Your task to perform on an android device: Open Amazon Image 0: 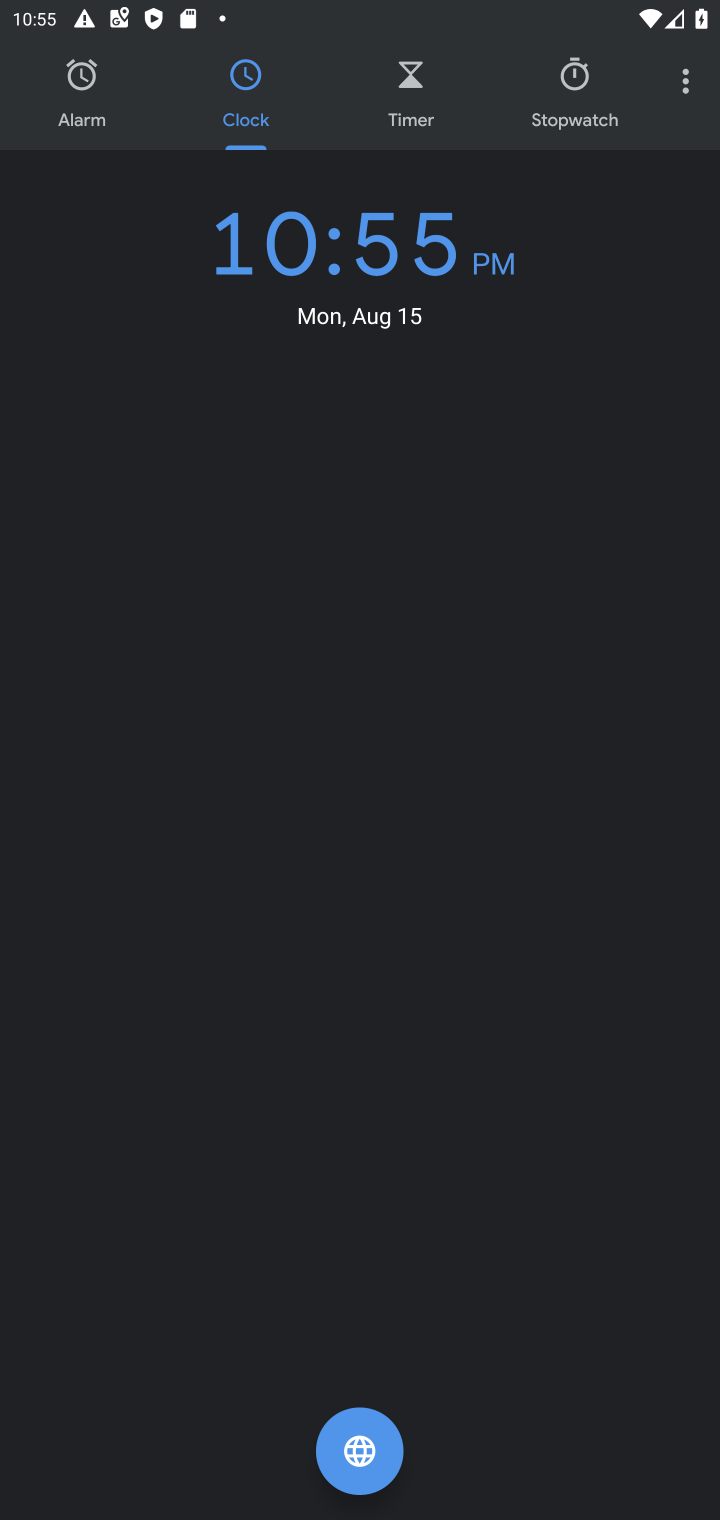
Step 0: press home button
Your task to perform on an android device: Open Amazon Image 1: 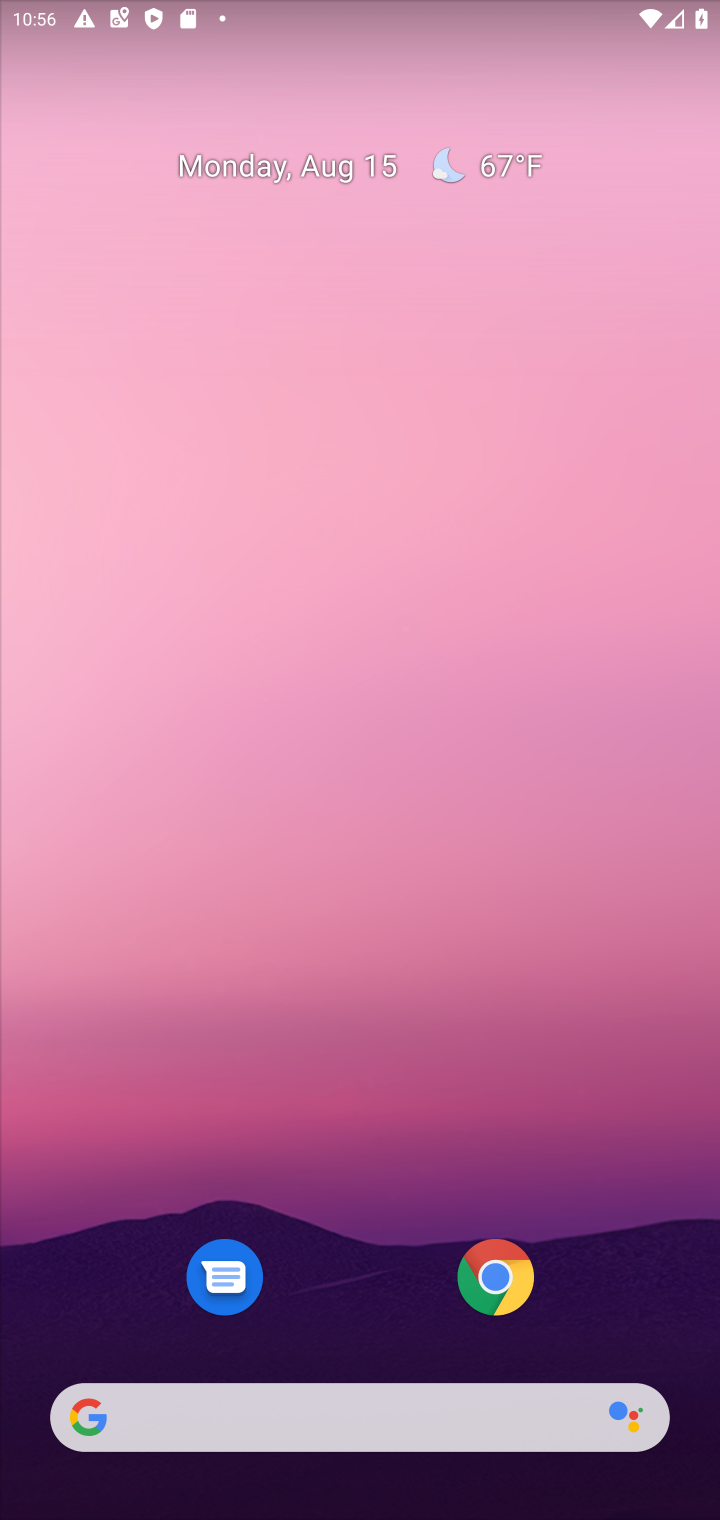
Step 1: click (506, 1275)
Your task to perform on an android device: Open Amazon Image 2: 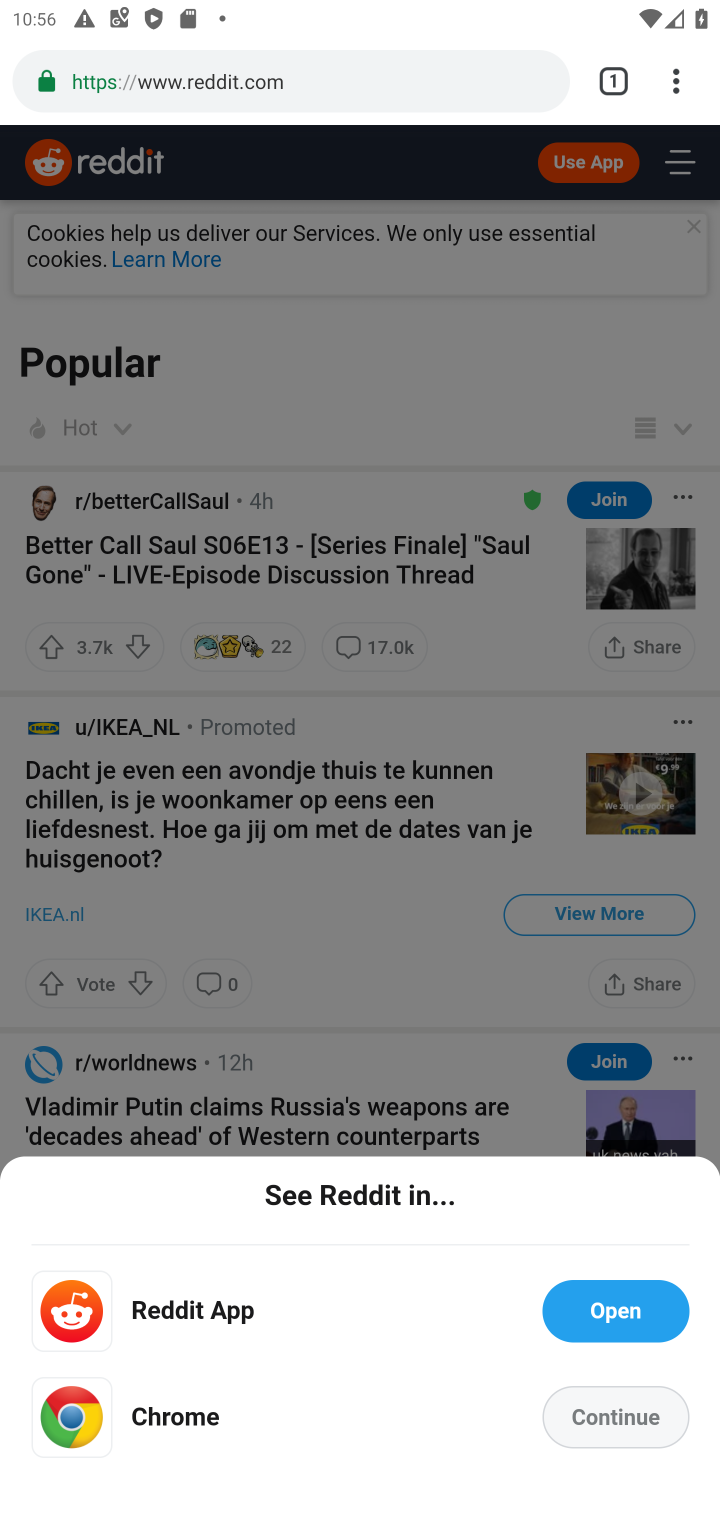
Step 2: click (287, 87)
Your task to perform on an android device: Open Amazon Image 3: 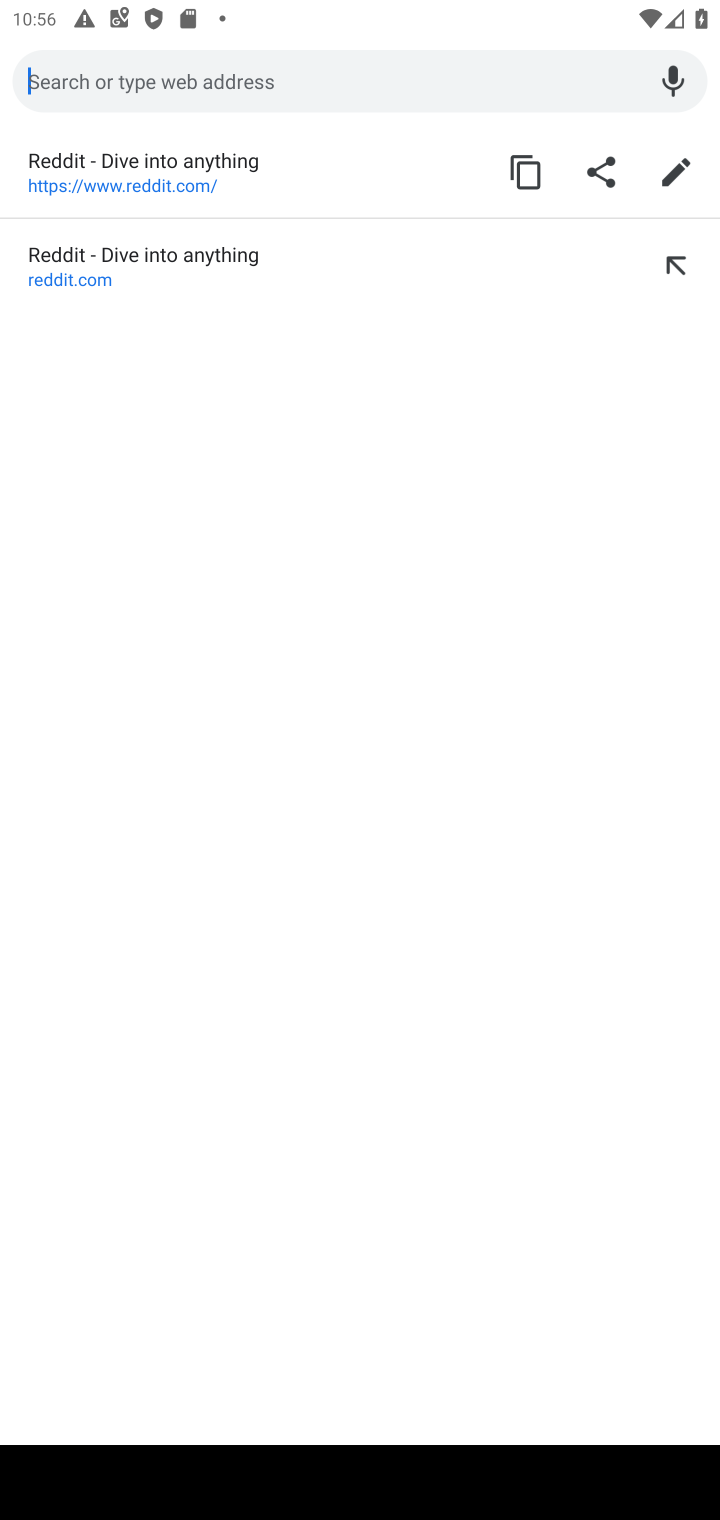
Step 3: type "amazon"
Your task to perform on an android device: Open Amazon Image 4: 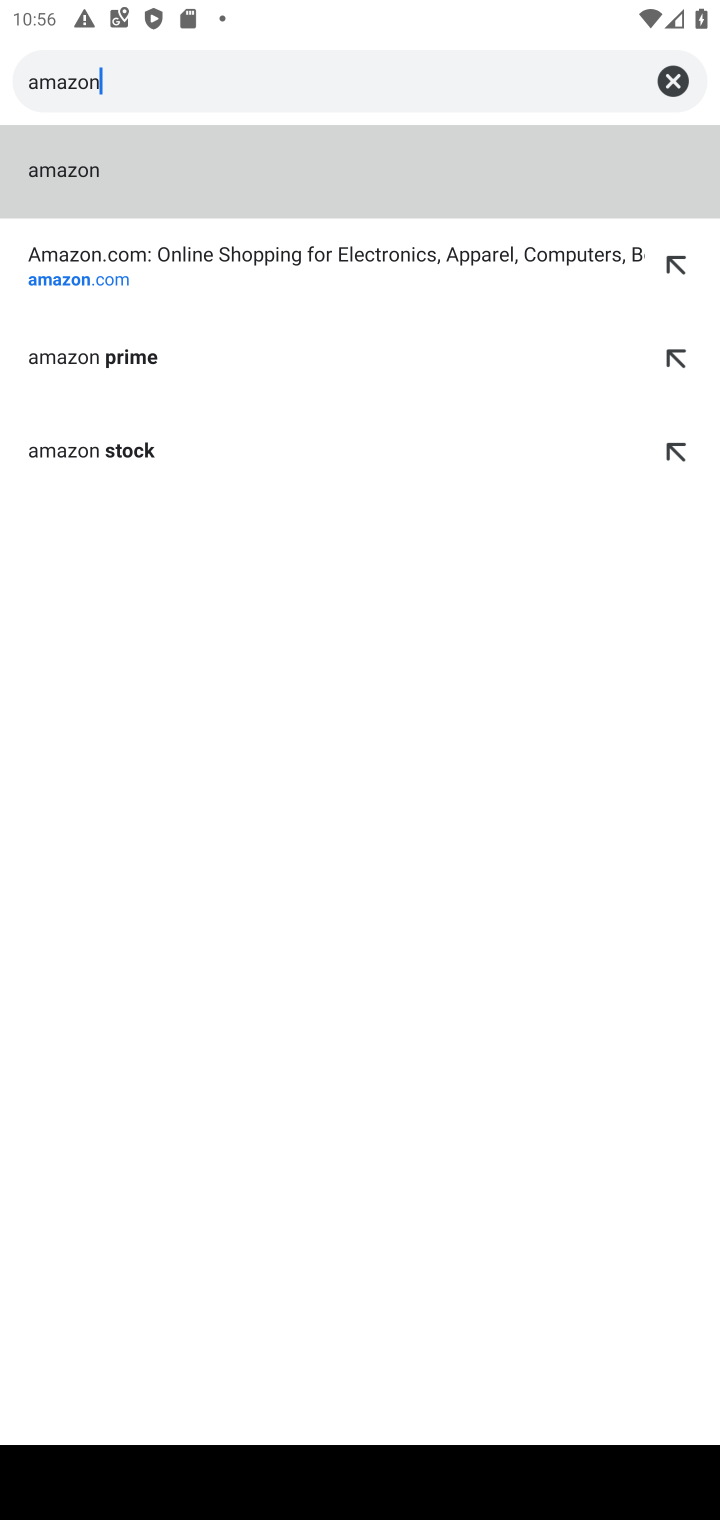
Step 4: click (198, 263)
Your task to perform on an android device: Open Amazon Image 5: 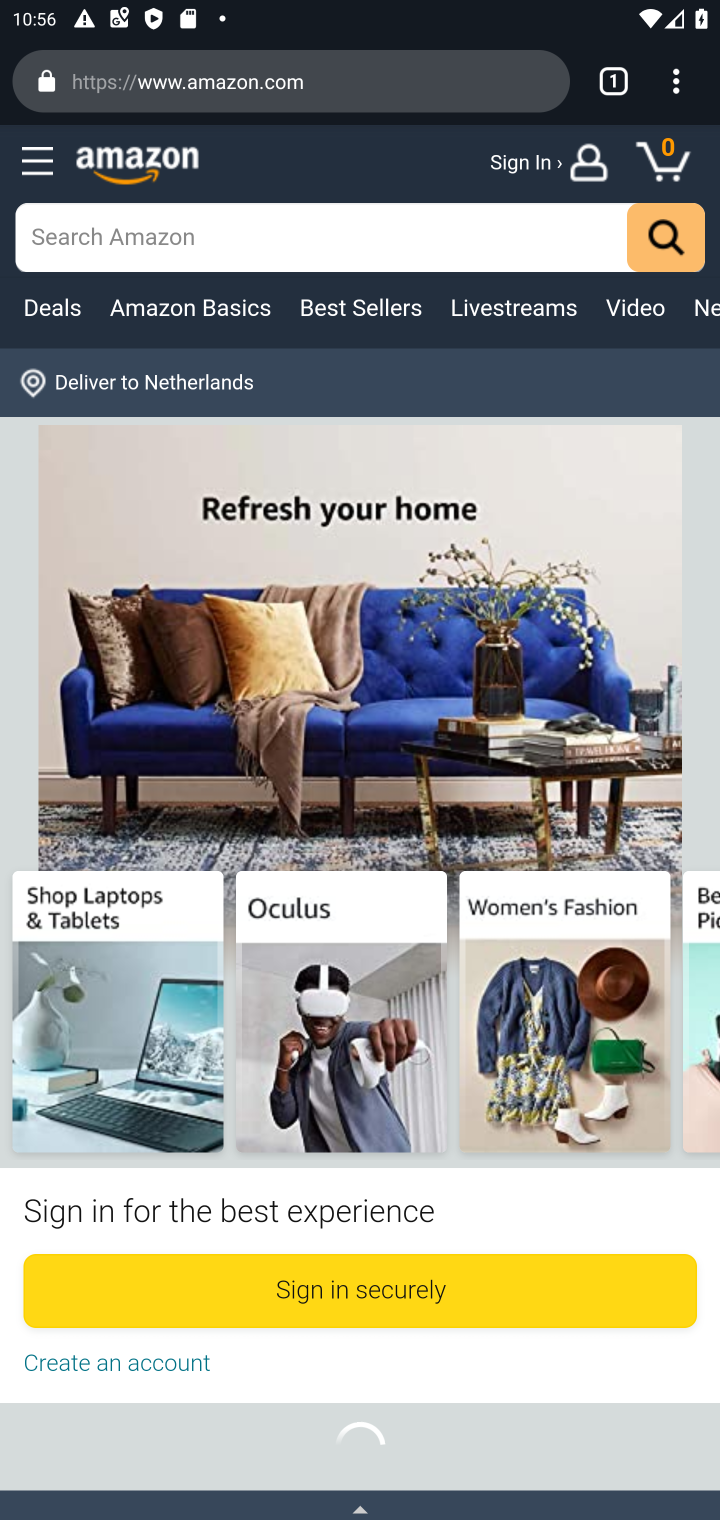
Step 5: task complete